Your task to perform on an android device: empty trash in google photos Image 0: 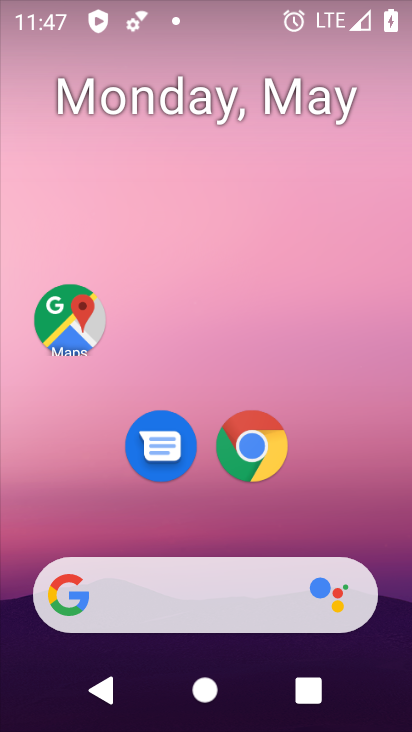
Step 0: drag from (324, 506) to (273, 75)
Your task to perform on an android device: empty trash in google photos Image 1: 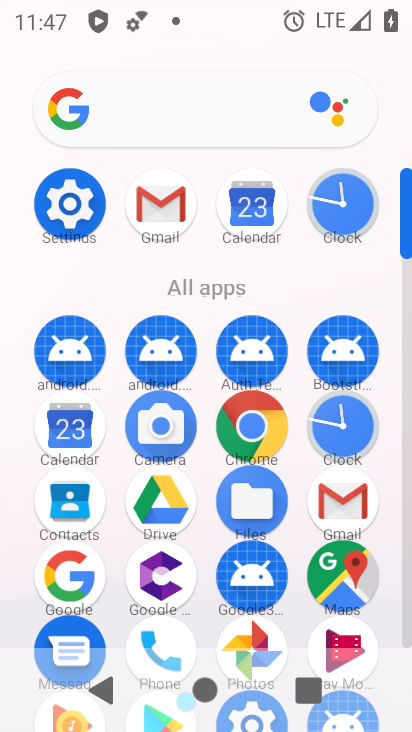
Step 1: click (243, 644)
Your task to perform on an android device: empty trash in google photos Image 2: 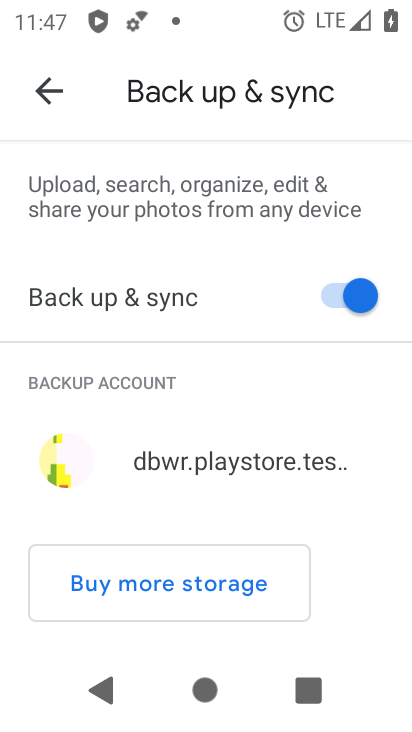
Step 2: click (41, 90)
Your task to perform on an android device: empty trash in google photos Image 3: 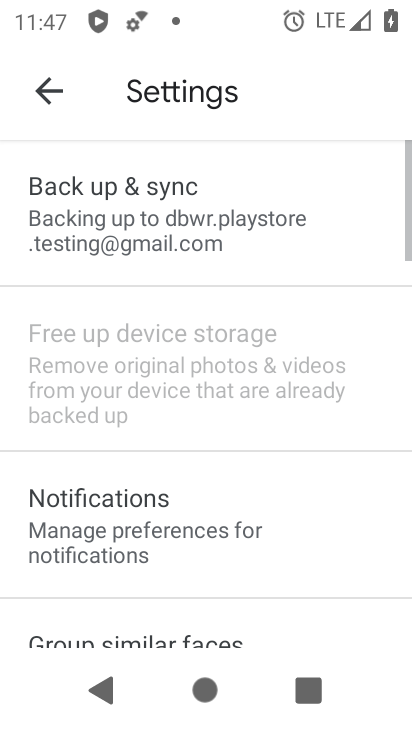
Step 3: click (41, 90)
Your task to perform on an android device: empty trash in google photos Image 4: 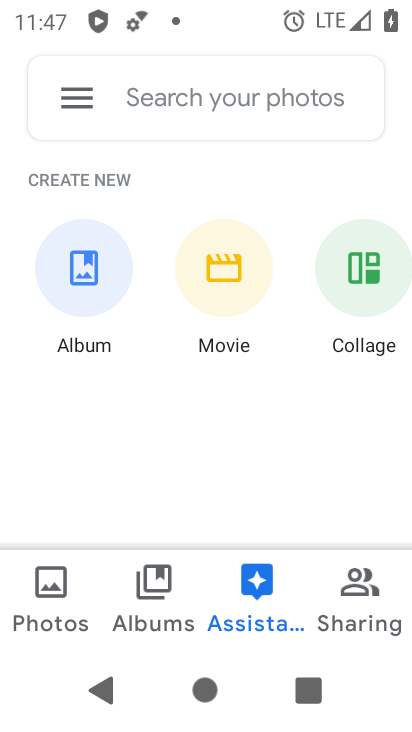
Step 4: click (85, 99)
Your task to perform on an android device: empty trash in google photos Image 5: 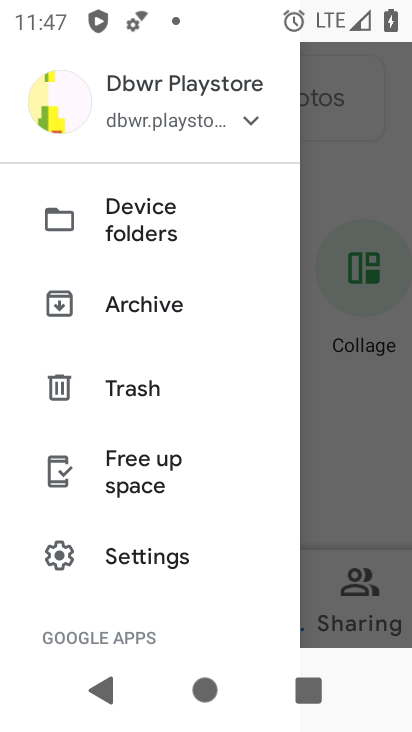
Step 5: click (136, 386)
Your task to perform on an android device: empty trash in google photos Image 6: 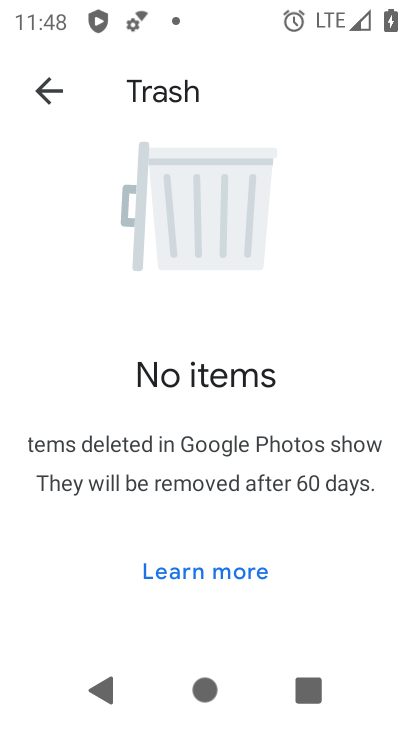
Step 6: task complete